Your task to perform on an android device: uninstall "Truecaller" Image 0: 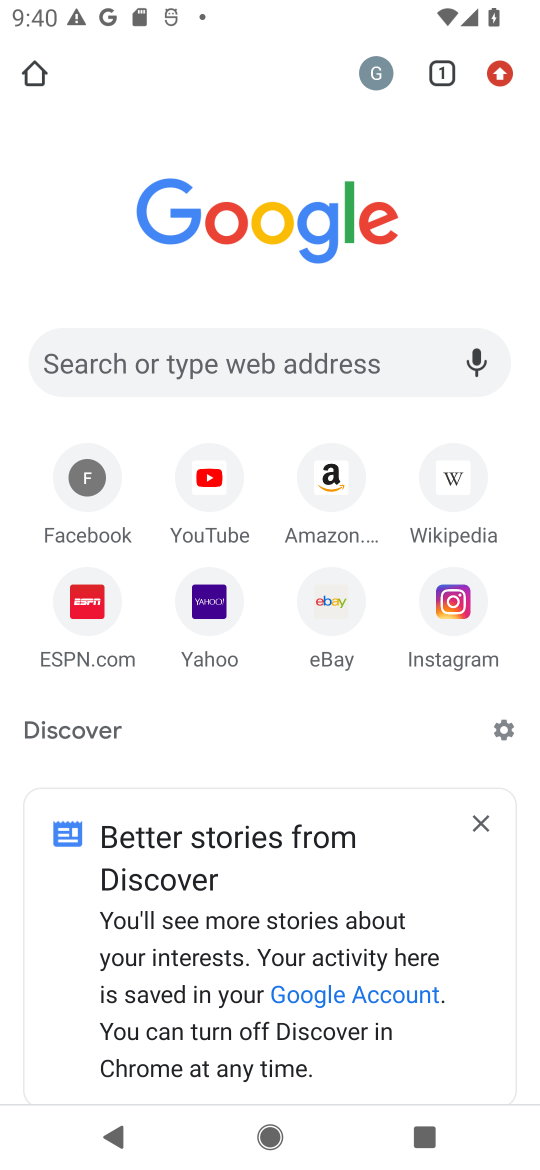
Step 0: press home button
Your task to perform on an android device: uninstall "Truecaller" Image 1: 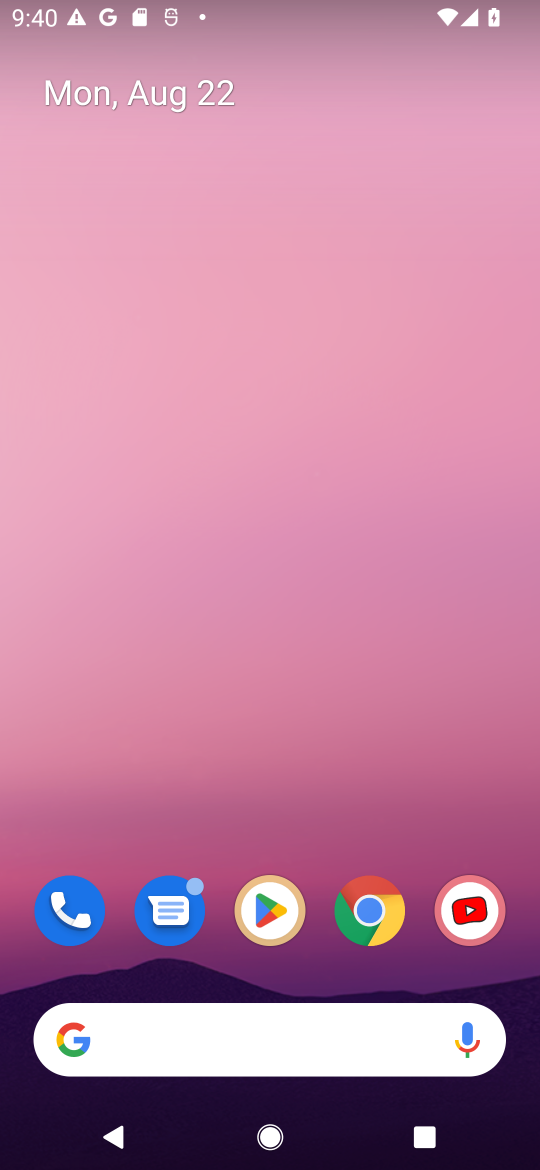
Step 1: click (252, 895)
Your task to perform on an android device: uninstall "Truecaller" Image 2: 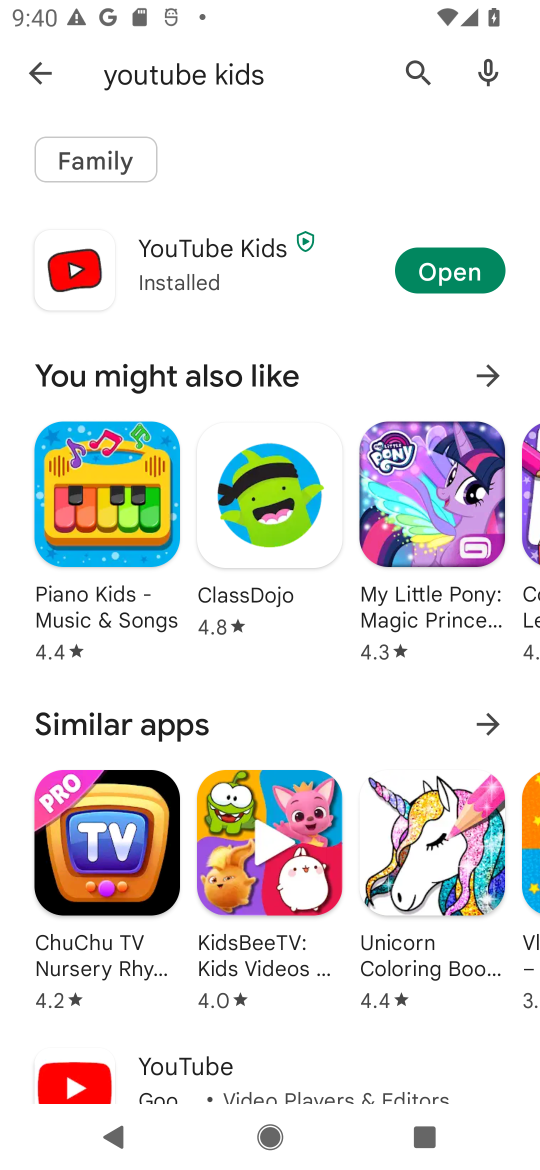
Step 2: click (408, 62)
Your task to perform on an android device: uninstall "Truecaller" Image 3: 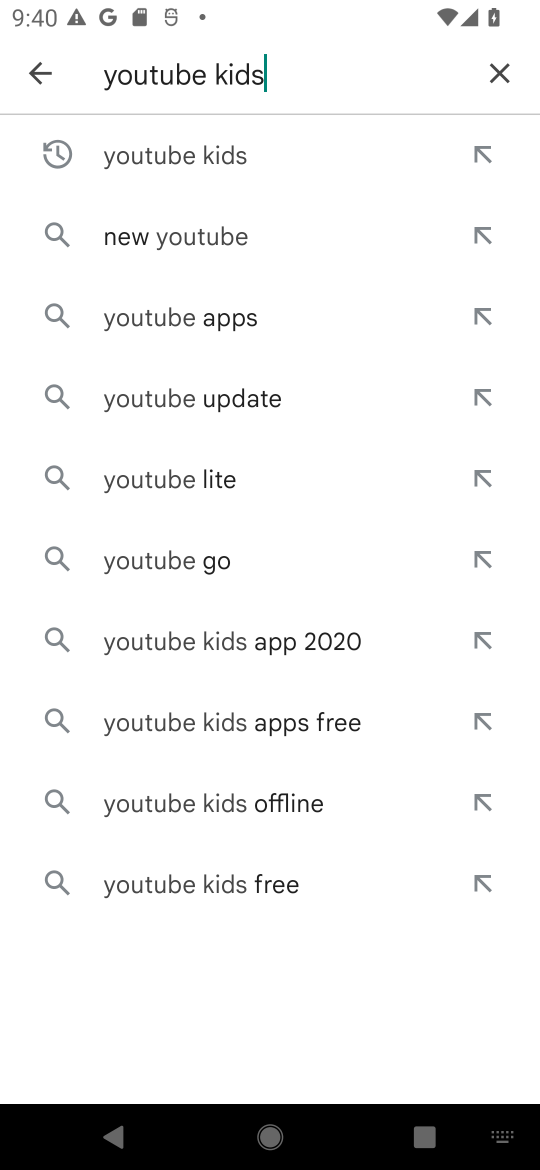
Step 3: click (493, 85)
Your task to perform on an android device: uninstall "Truecaller" Image 4: 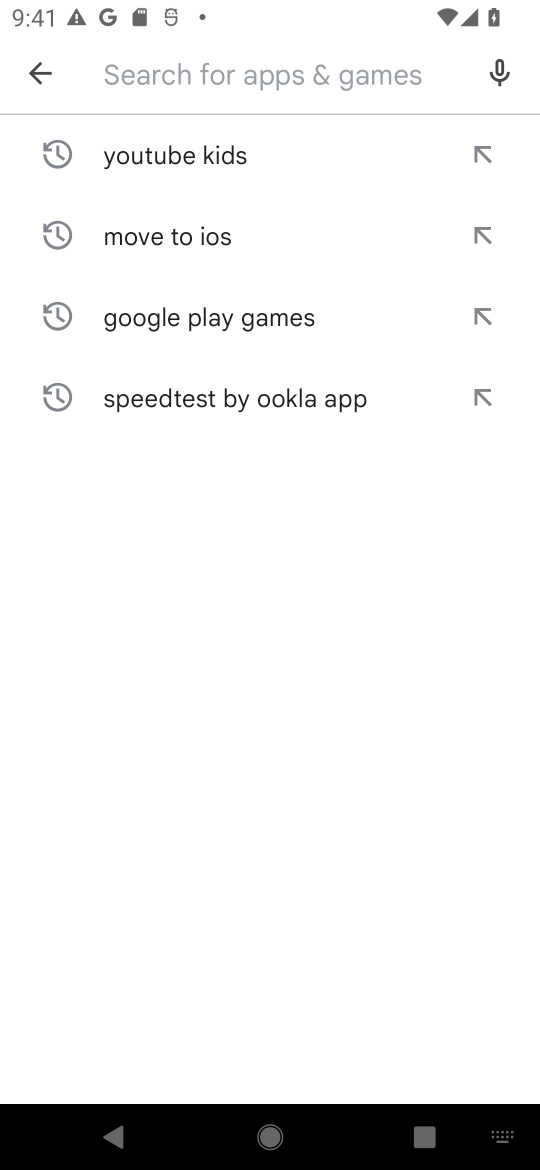
Step 4: type "Truecaller"
Your task to perform on an android device: uninstall "Truecaller" Image 5: 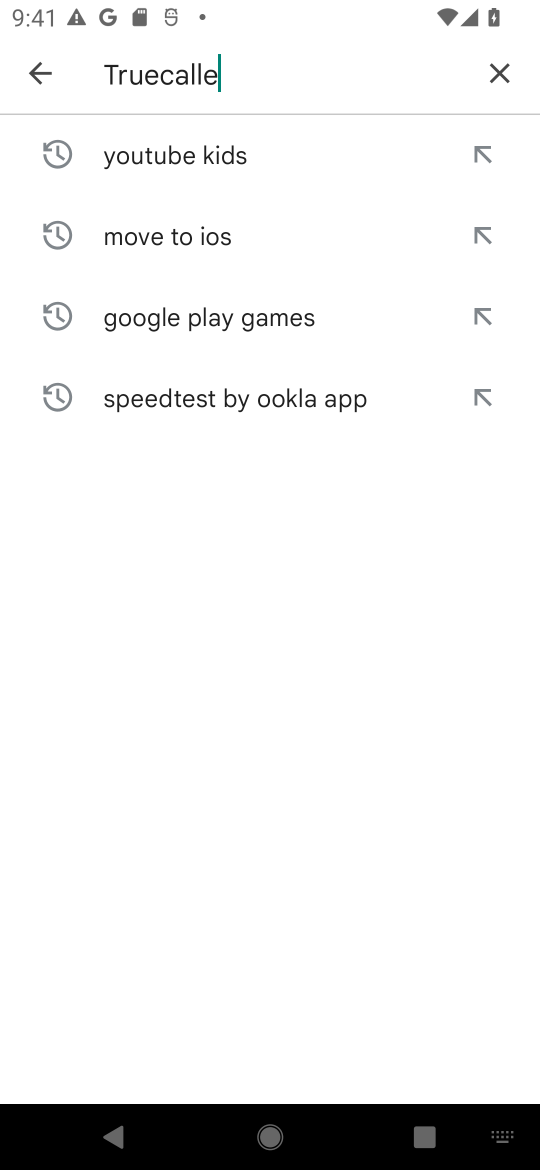
Step 5: type ""
Your task to perform on an android device: uninstall "Truecaller" Image 6: 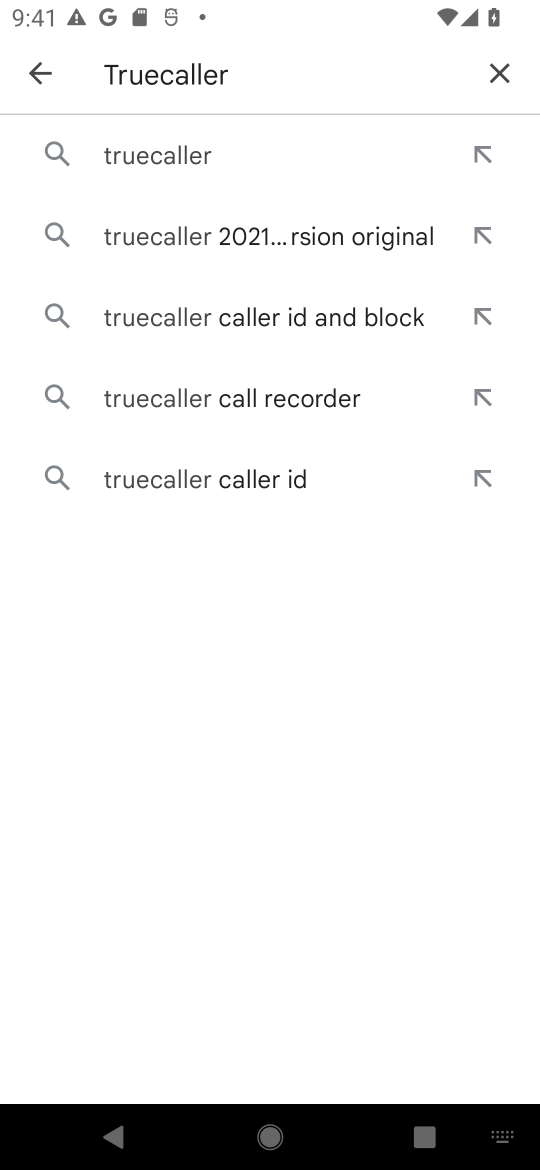
Step 6: click (205, 137)
Your task to perform on an android device: uninstall "Truecaller" Image 7: 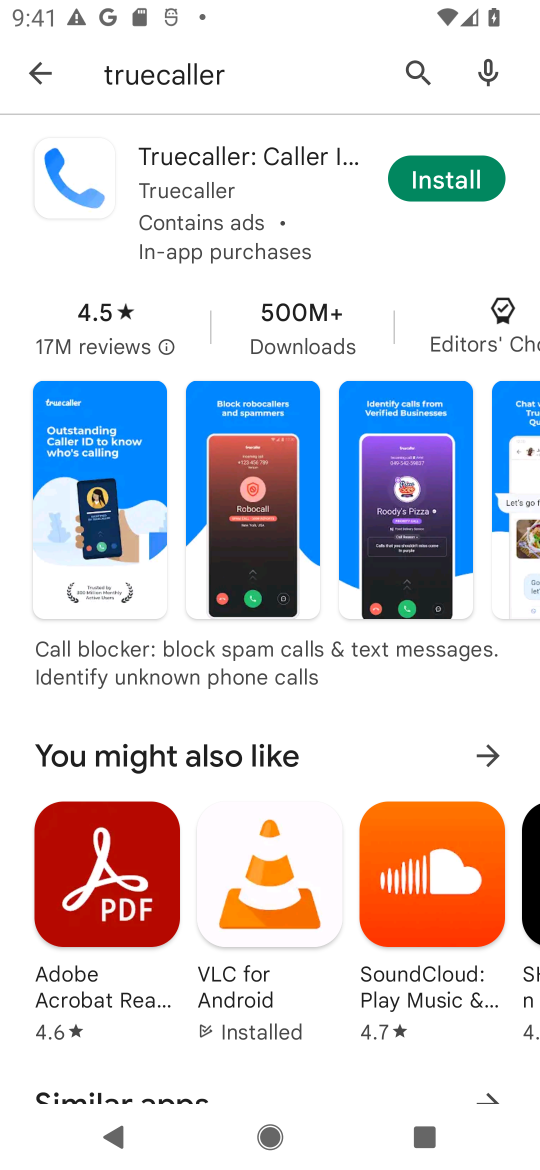
Step 7: task complete